Your task to perform on an android device: toggle javascript in the chrome app Image 0: 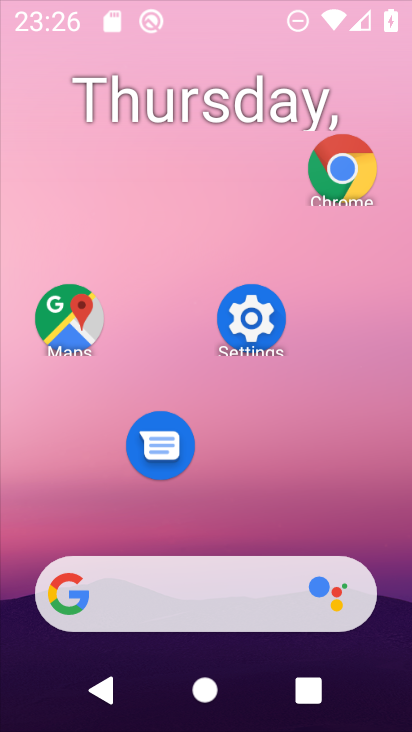
Step 0: click (318, 175)
Your task to perform on an android device: toggle javascript in the chrome app Image 1: 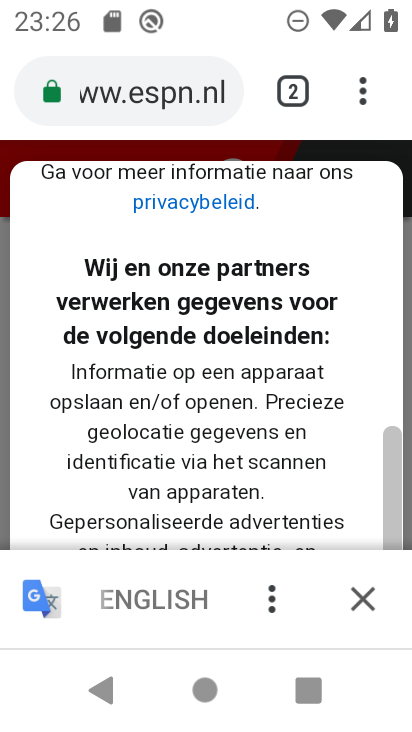
Step 1: click (350, 82)
Your task to perform on an android device: toggle javascript in the chrome app Image 2: 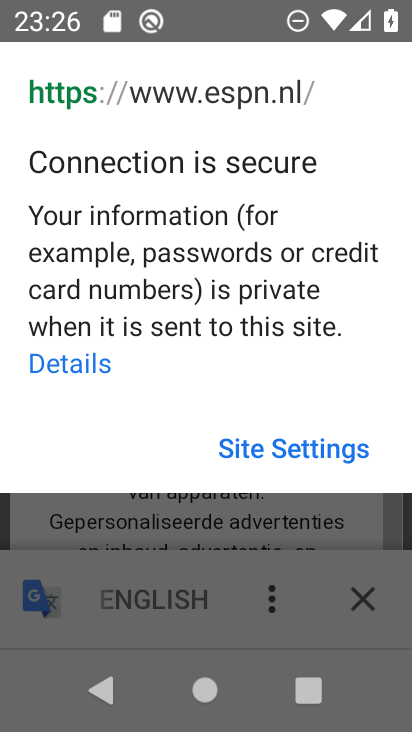
Step 2: click (175, 501)
Your task to perform on an android device: toggle javascript in the chrome app Image 3: 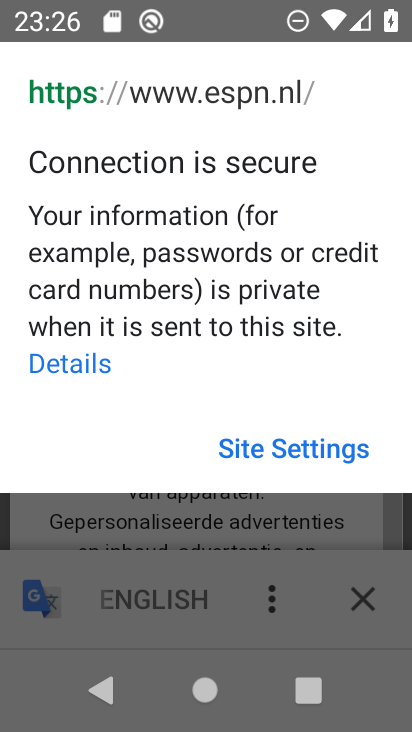
Step 3: press back button
Your task to perform on an android device: toggle javascript in the chrome app Image 4: 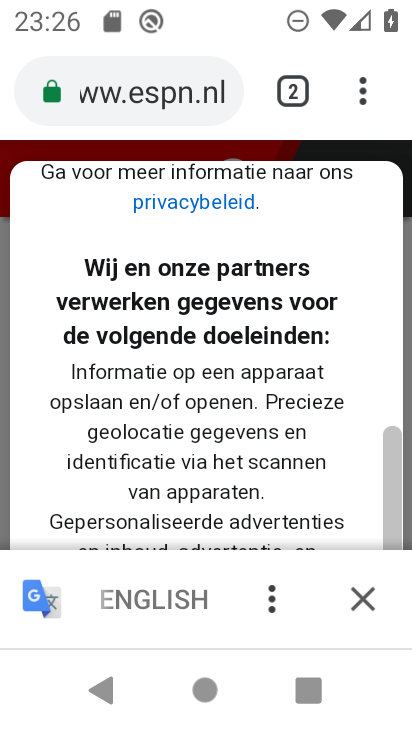
Step 4: click (369, 86)
Your task to perform on an android device: toggle javascript in the chrome app Image 5: 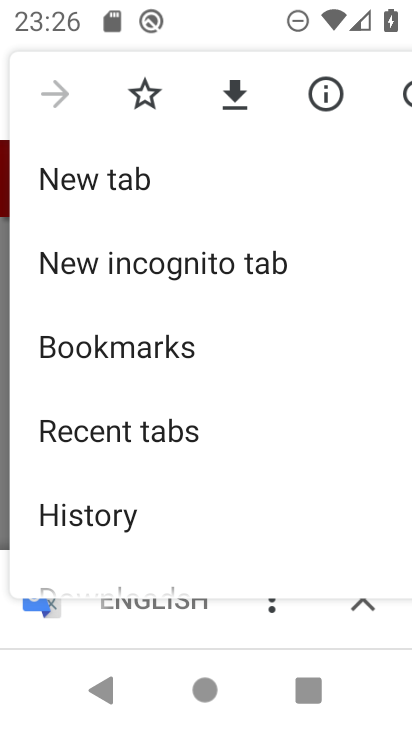
Step 5: drag from (159, 513) to (339, 0)
Your task to perform on an android device: toggle javascript in the chrome app Image 6: 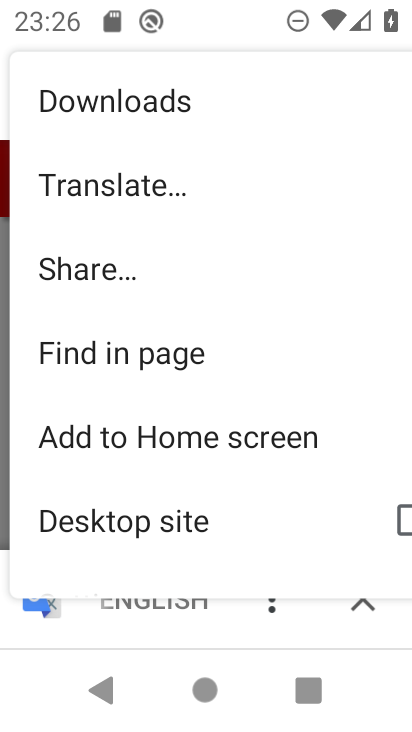
Step 6: drag from (151, 505) to (237, 64)
Your task to perform on an android device: toggle javascript in the chrome app Image 7: 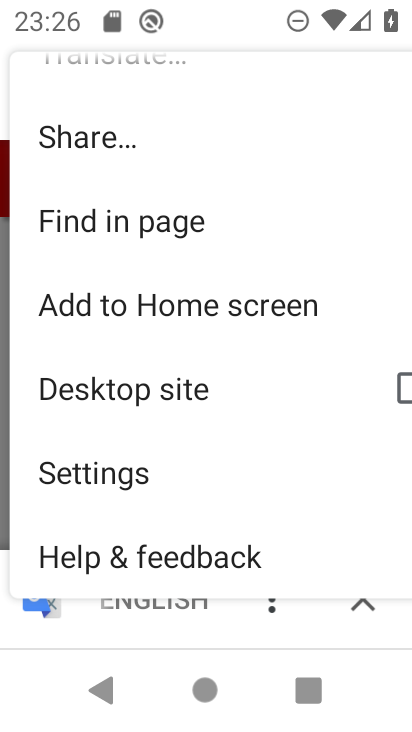
Step 7: click (113, 458)
Your task to perform on an android device: toggle javascript in the chrome app Image 8: 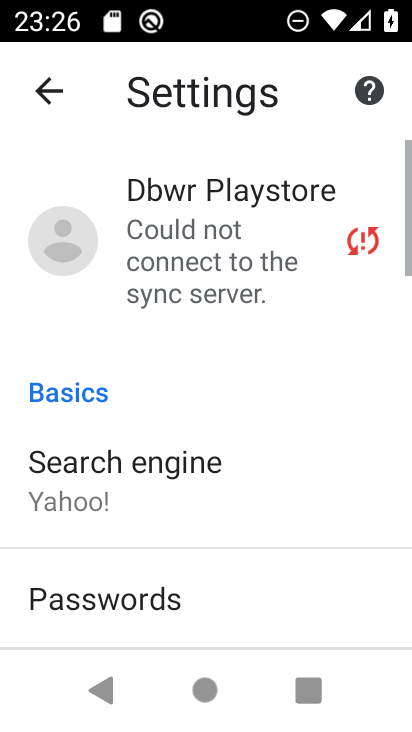
Step 8: drag from (208, 444) to (346, 2)
Your task to perform on an android device: toggle javascript in the chrome app Image 9: 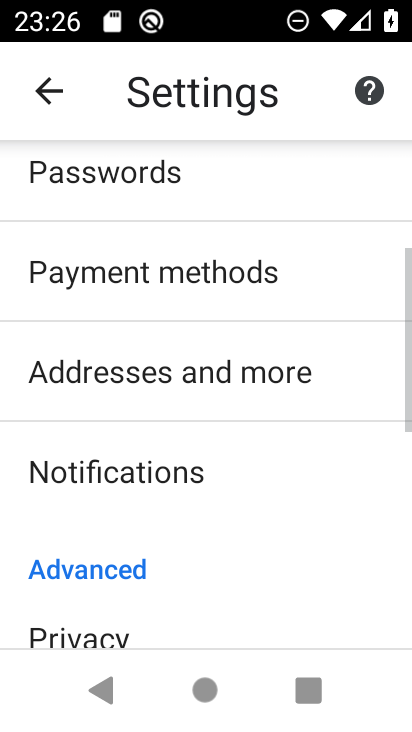
Step 9: drag from (164, 446) to (255, 33)
Your task to perform on an android device: toggle javascript in the chrome app Image 10: 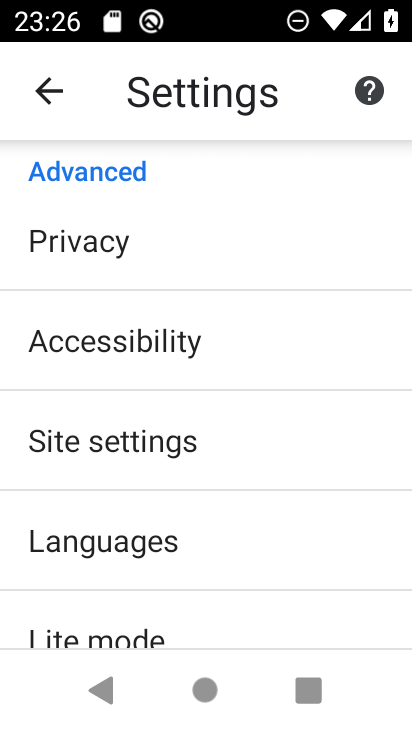
Step 10: drag from (202, 410) to (275, 177)
Your task to perform on an android device: toggle javascript in the chrome app Image 11: 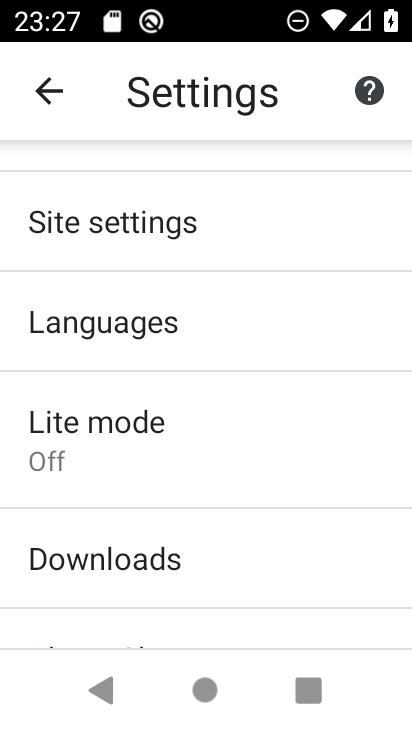
Step 11: click (179, 235)
Your task to perform on an android device: toggle javascript in the chrome app Image 12: 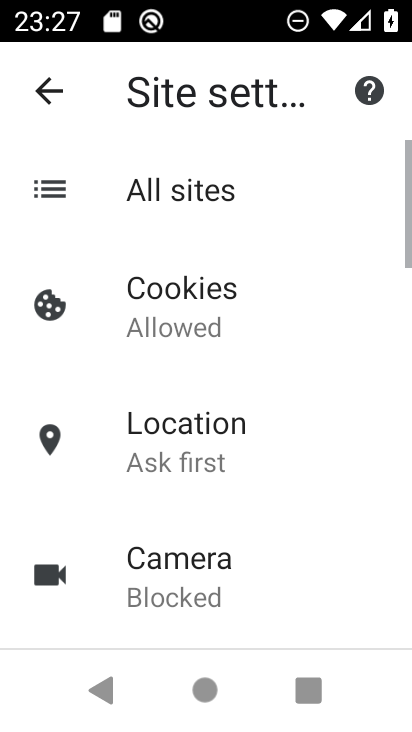
Step 12: drag from (214, 536) to (287, 225)
Your task to perform on an android device: toggle javascript in the chrome app Image 13: 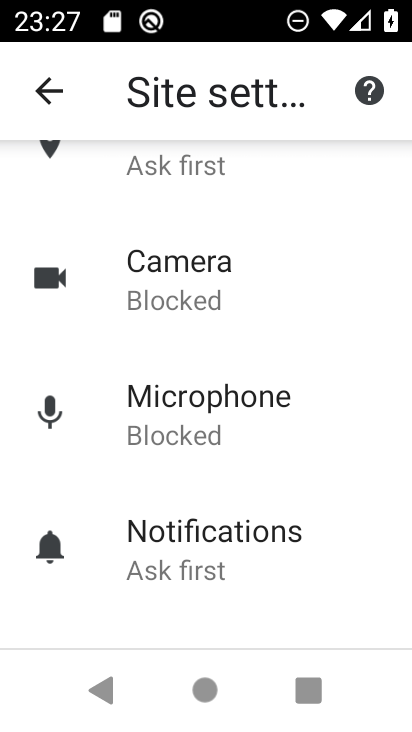
Step 13: drag from (194, 494) to (281, 168)
Your task to perform on an android device: toggle javascript in the chrome app Image 14: 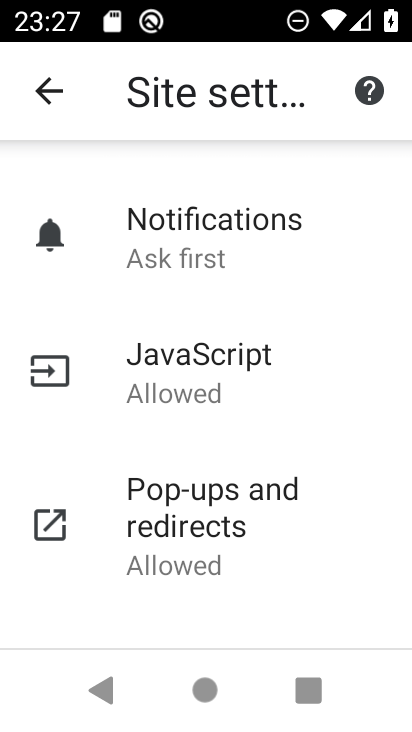
Step 14: click (247, 376)
Your task to perform on an android device: toggle javascript in the chrome app Image 15: 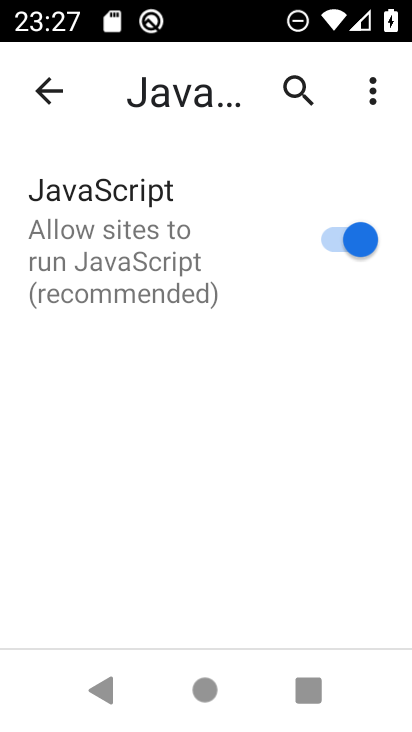
Step 15: click (359, 193)
Your task to perform on an android device: toggle javascript in the chrome app Image 16: 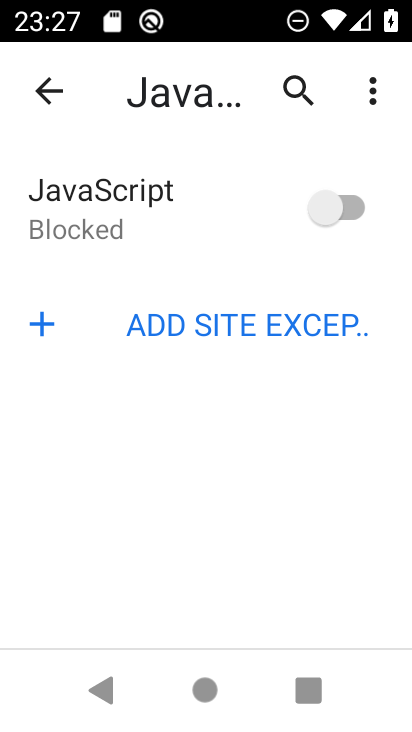
Step 16: task complete